Your task to perform on an android device: Open display settings Image 0: 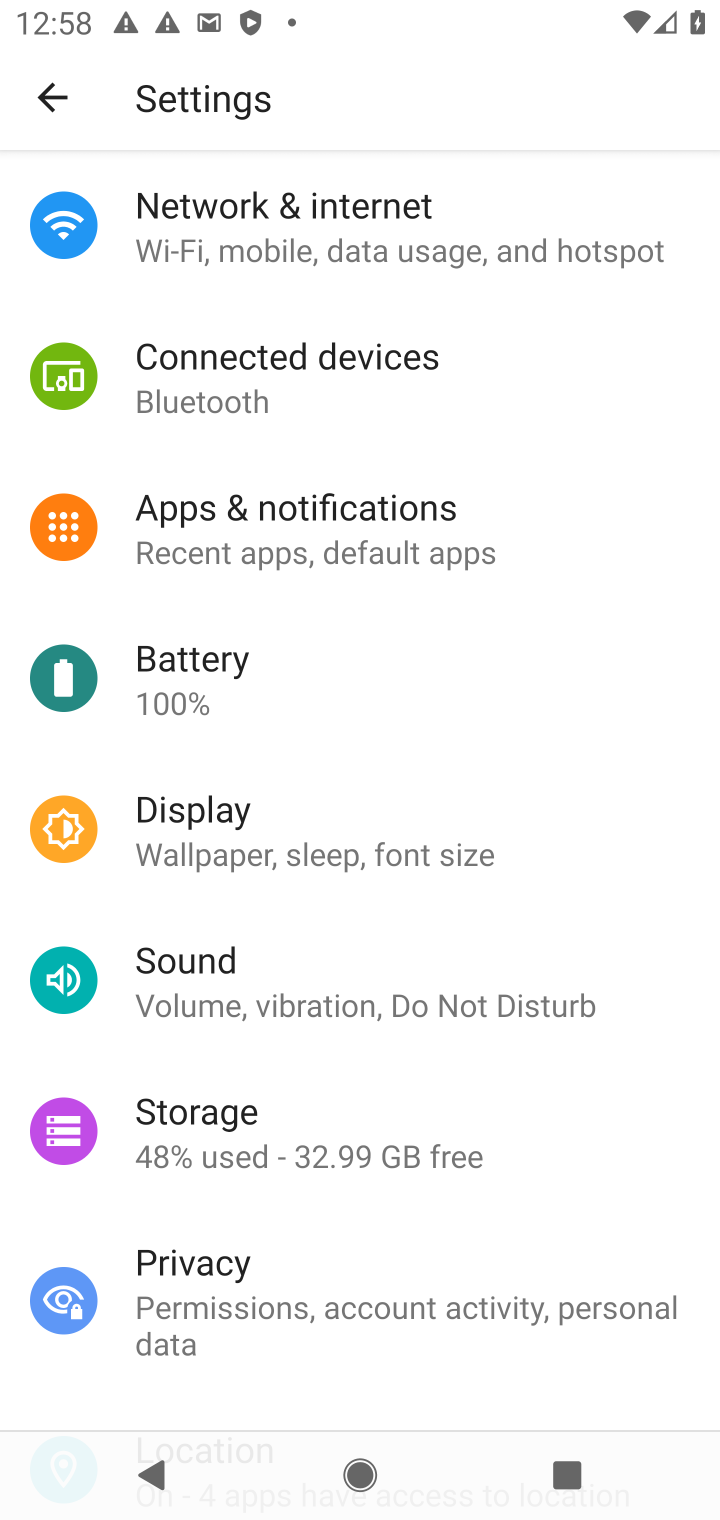
Step 0: click (181, 848)
Your task to perform on an android device: Open display settings Image 1: 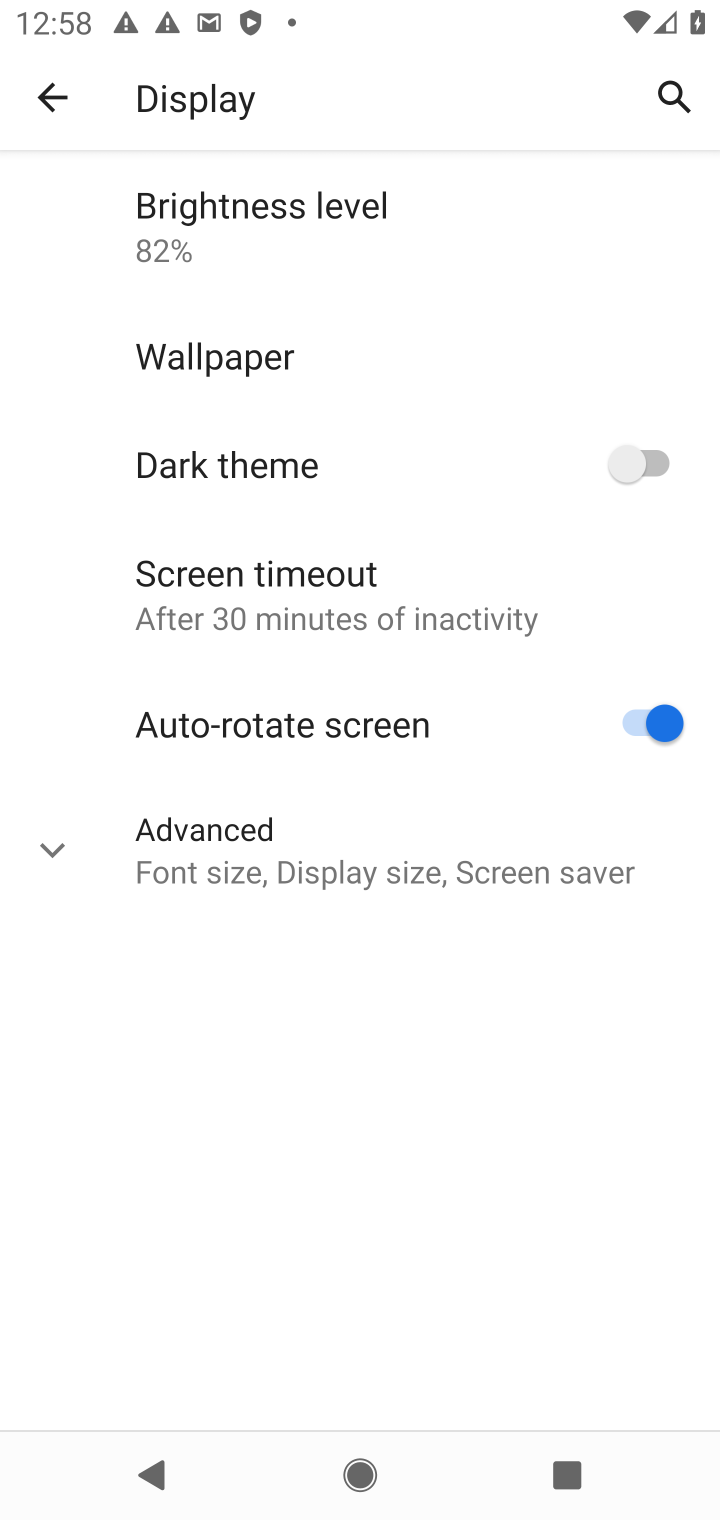
Step 1: task complete